Your task to perform on an android device: open sync settings in chrome Image 0: 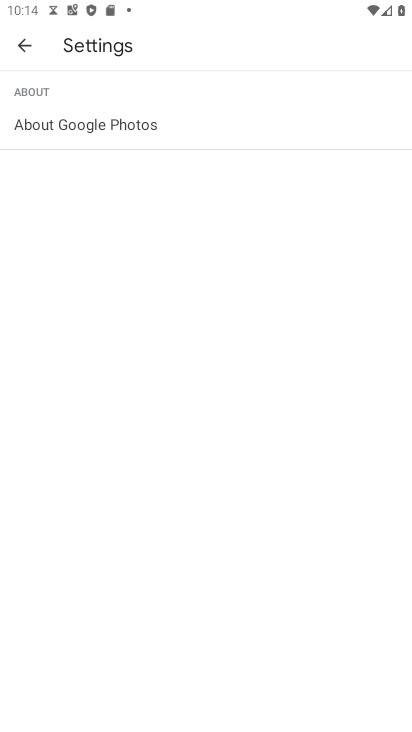
Step 0: press back button
Your task to perform on an android device: open sync settings in chrome Image 1: 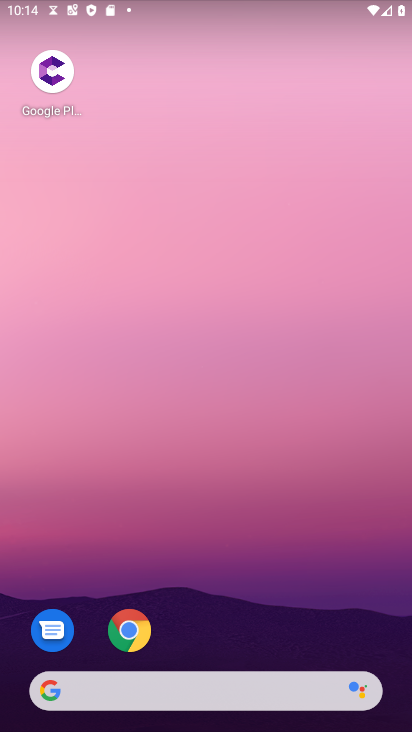
Step 1: click (134, 622)
Your task to perform on an android device: open sync settings in chrome Image 2: 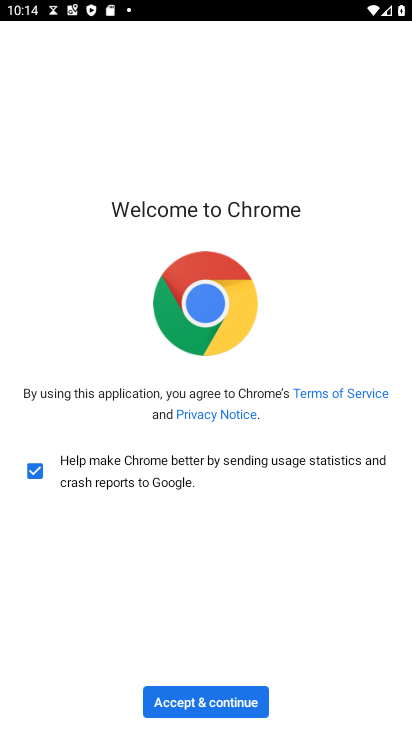
Step 2: click (195, 700)
Your task to perform on an android device: open sync settings in chrome Image 3: 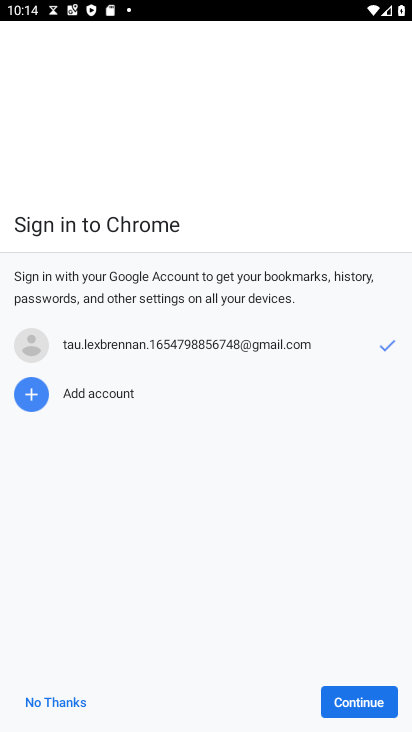
Step 3: click (360, 697)
Your task to perform on an android device: open sync settings in chrome Image 4: 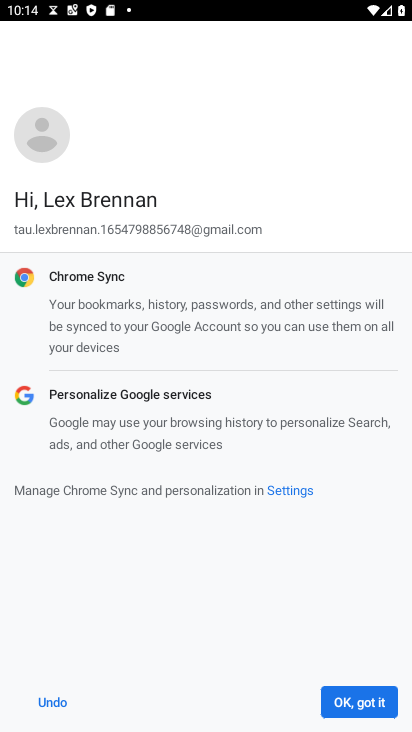
Step 4: click (360, 697)
Your task to perform on an android device: open sync settings in chrome Image 5: 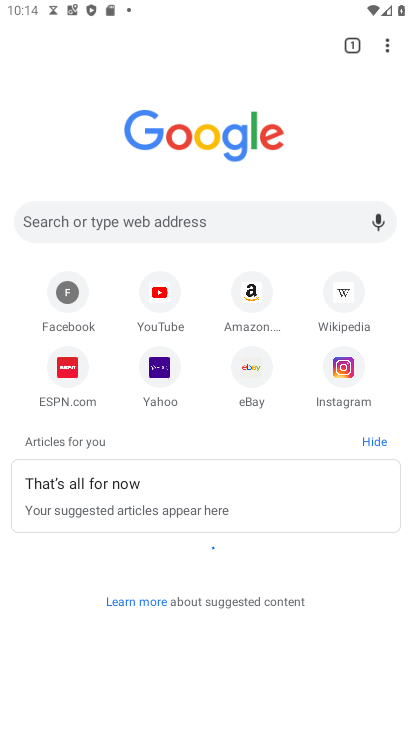
Step 5: click (388, 48)
Your task to perform on an android device: open sync settings in chrome Image 6: 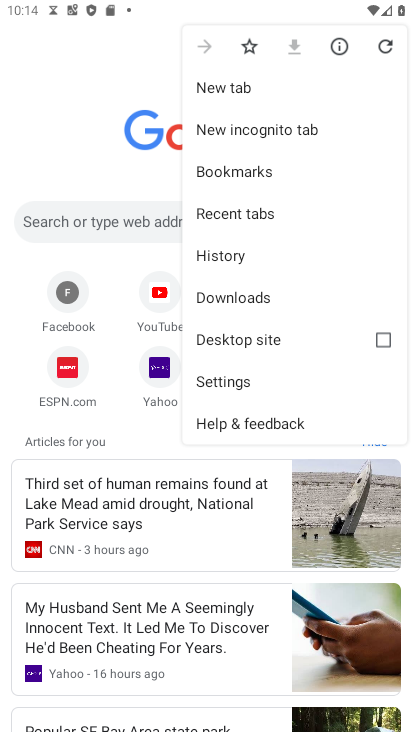
Step 6: click (222, 388)
Your task to perform on an android device: open sync settings in chrome Image 7: 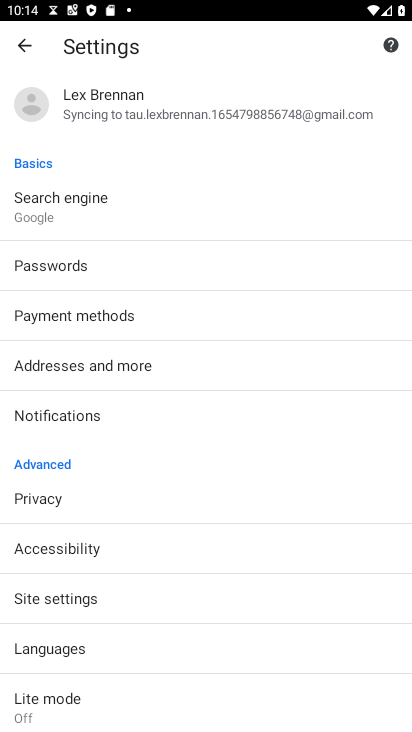
Step 7: click (179, 105)
Your task to perform on an android device: open sync settings in chrome Image 8: 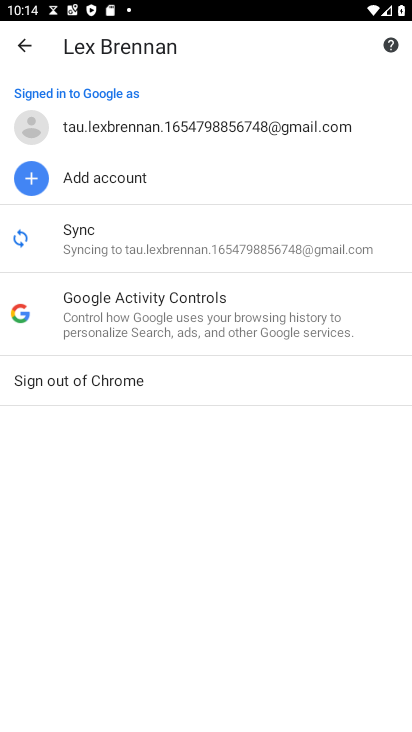
Step 8: click (112, 235)
Your task to perform on an android device: open sync settings in chrome Image 9: 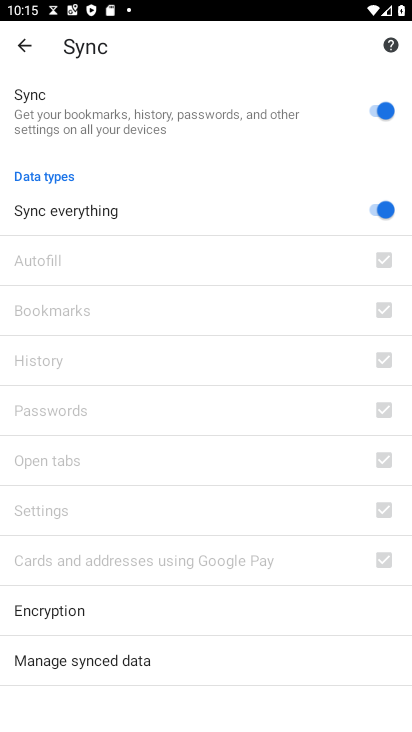
Step 9: task complete